Your task to perform on an android device: Where can I buy a nice beach blanket? Image 0: 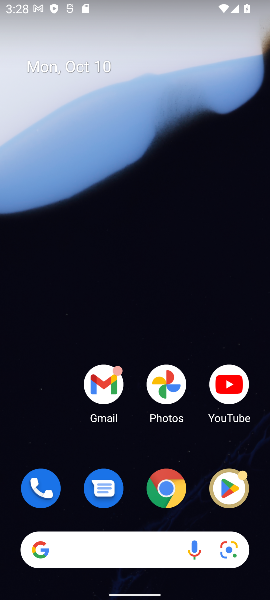
Step 0: click (148, 554)
Your task to perform on an android device: Where can I buy a nice beach blanket? Image 1: 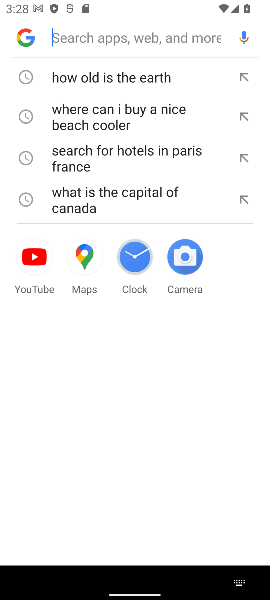
Step 1: click (74, 37)
Your task to perform on an android device: Where can I buy a nice beach blanket? Image 2: 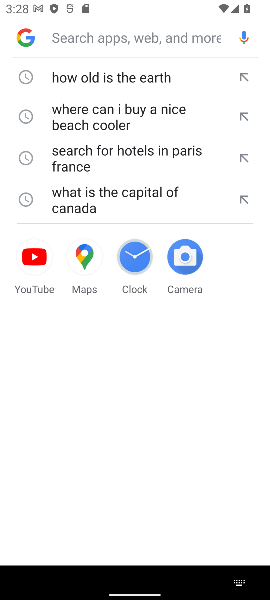
Step 2: type "Where can I buy a nice beach blanket?"
Your task to perform on an android device: Where can I buy a nice beach blanket? Image 3: 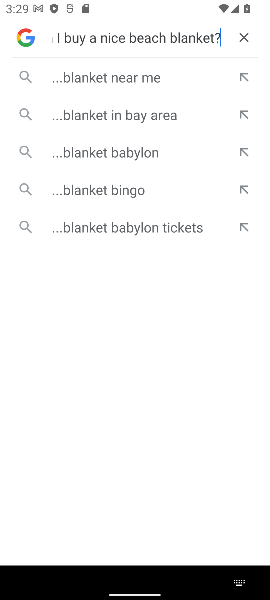
Step 3: click (117, 77)
Your task to perform on an android device: Where can I buy a nice beach blanket? Image 4: 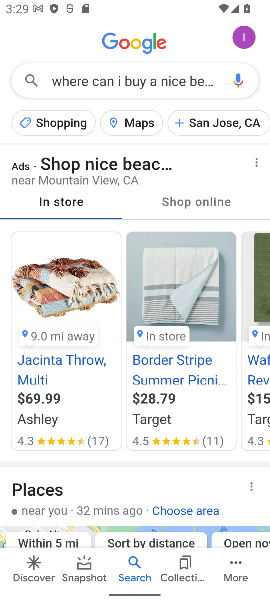
Step 4: task complete